Your task to perform on an android device: Open display settings Image 0: 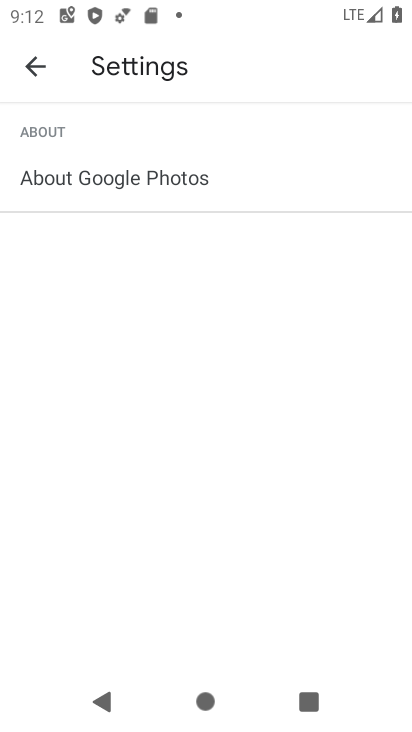
Step 0: press home button
Your task to perform on an android device: Open display settings Image 1: 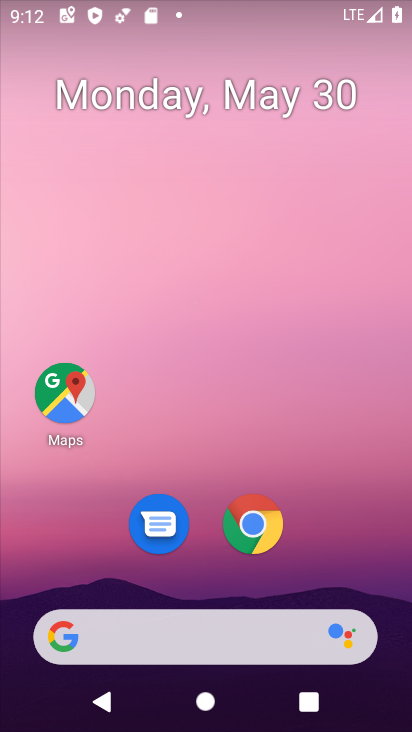
Step 1: drag from (327, 522) to (327, 29)
Your task to perform on an android device: Open display settings Image 2: 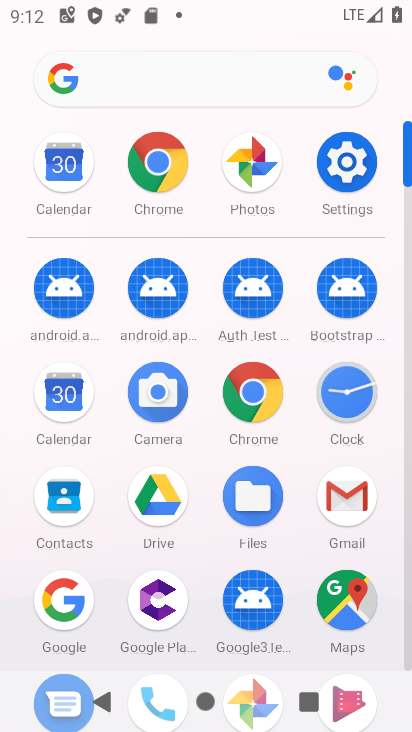
Step 2: click (352, 150)
Your task to perform on an android device: Open display settings Image 3: 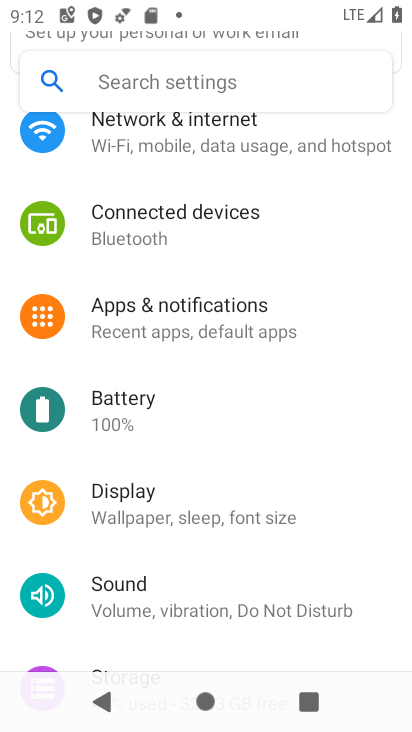
Step 3: click (190, 494)
Your task to perform on an android device: Open display settings Image 4: 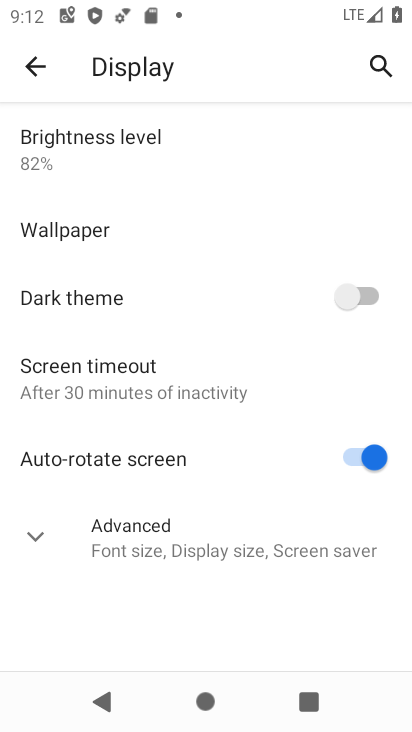
Step 4: task complete